Your task to perform on an android device: add a contact Image 0: 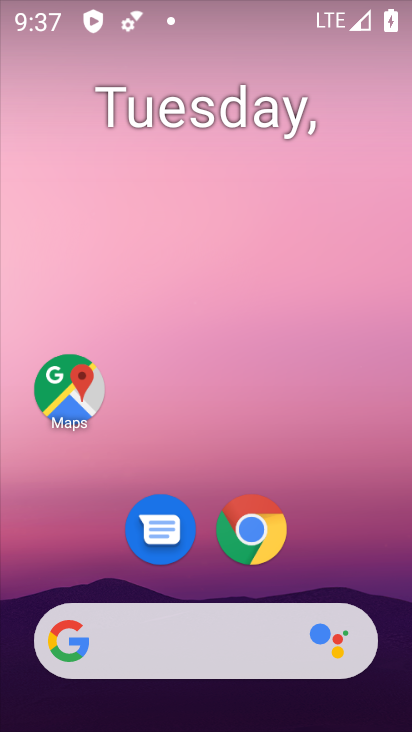
Step 0: drag from (322, 551) to (286, 23)
Your task to perform on an android device: add a contact Image 1: 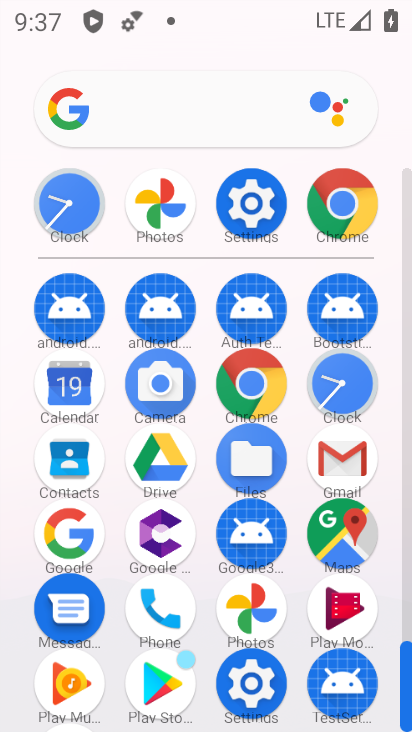
Step 1: click (80, 471)
Your task to perform on an android device: add a contact Image 2: 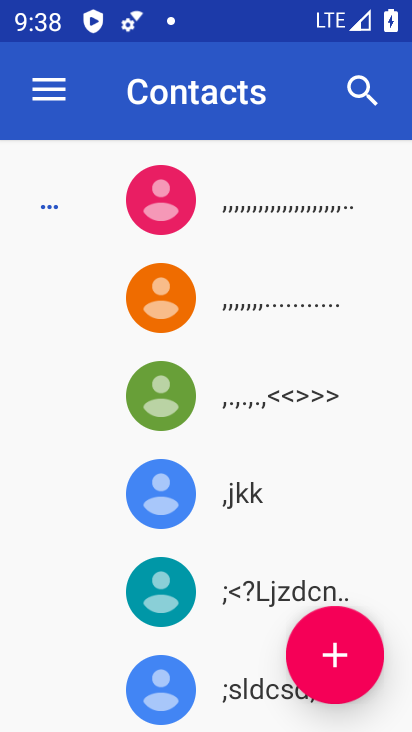
Step 2: click (334, 662)
Your task to perform on an android device: add a contact Image 3: 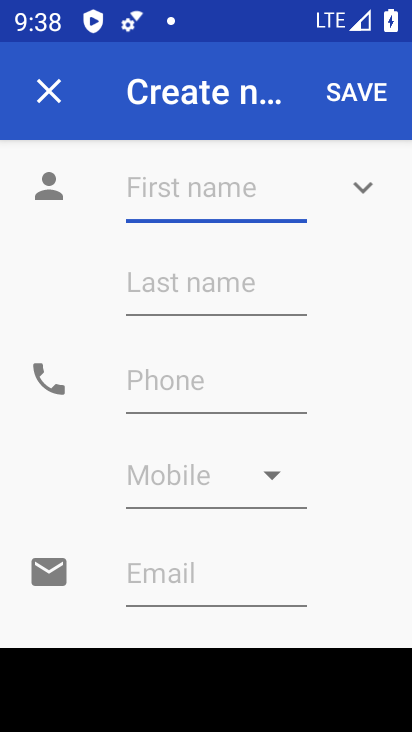
Step 3: type "hvjhjhh"
Your task to perform on an android device: add a contact Image 4: 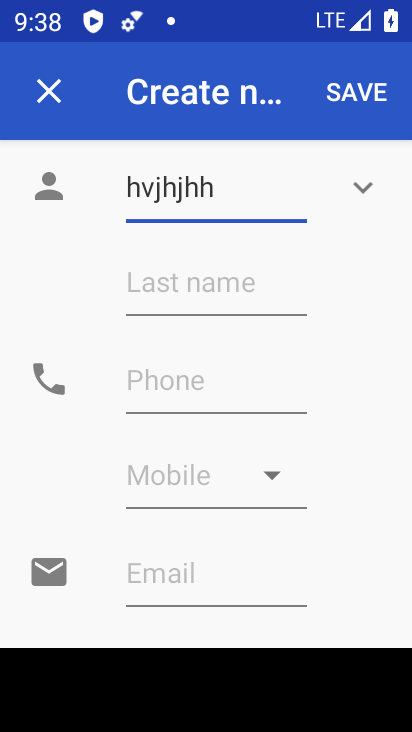
Step 4: click (167, 375)
Your task to perform on an android device: add a contact Image 5: 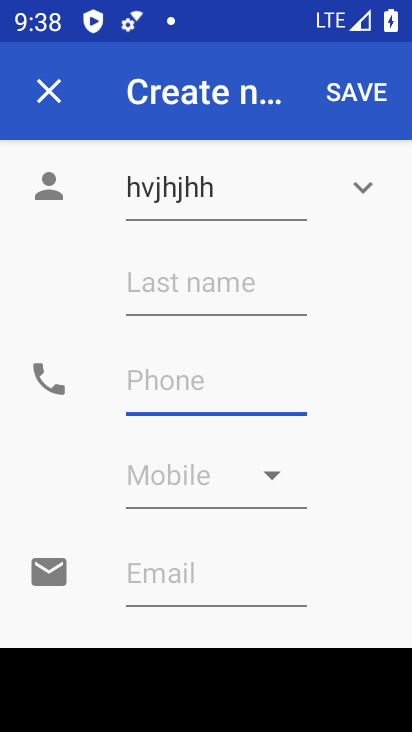
Step 5: type "87666567778"
Your task to perform on an android device: add a contact Image 6: 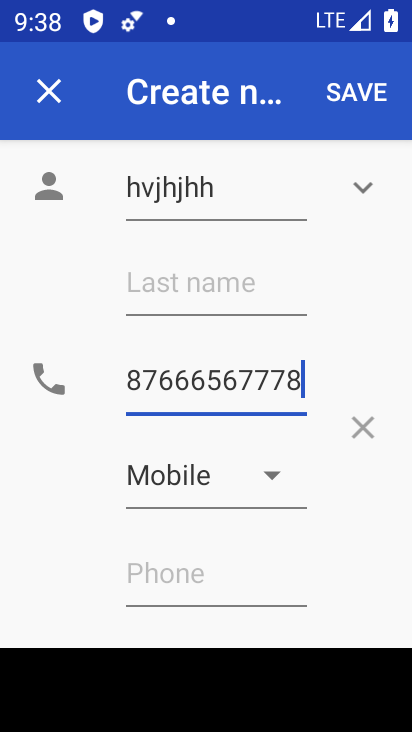
Step 6: click (365, 97)
Your task to perform on an android device: add a contact Image 7: 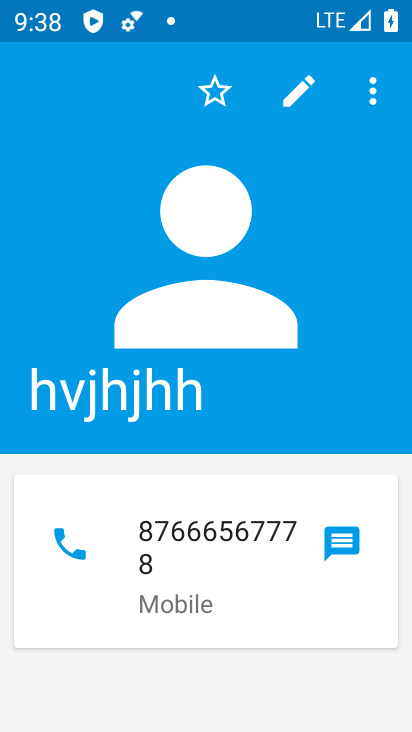
Step 7: task complete